Your task to perform on an android device: change the upload size in google photos Image 0: 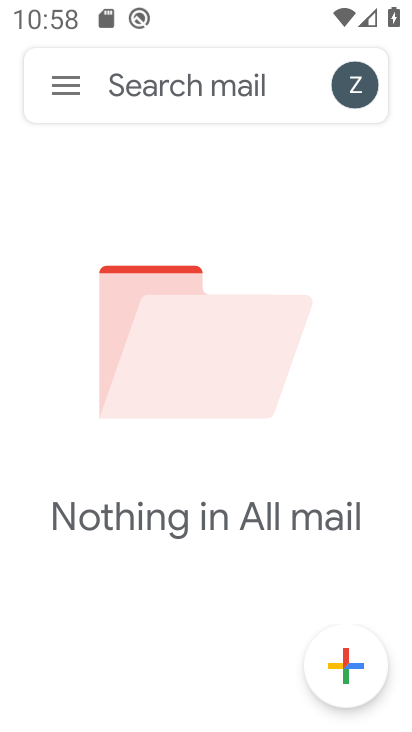
Step 0: press home button
Your task to perform on an android device: change the upload size in google photos Image 1: 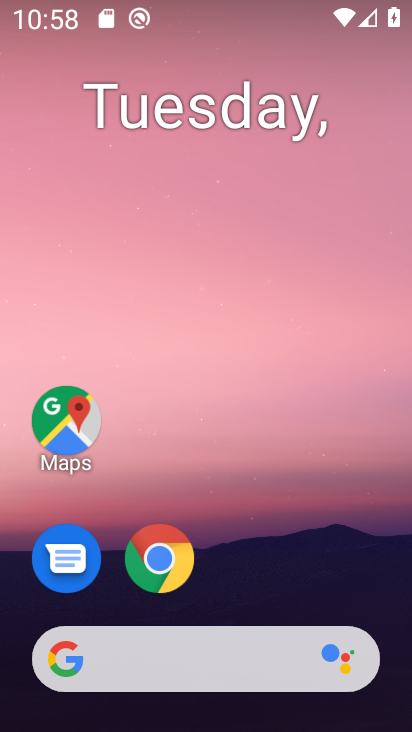
Step 1: drag from (308, 577) to (316, 169)
Your task to perform on an android device: change the upload size in google photos Image 2: 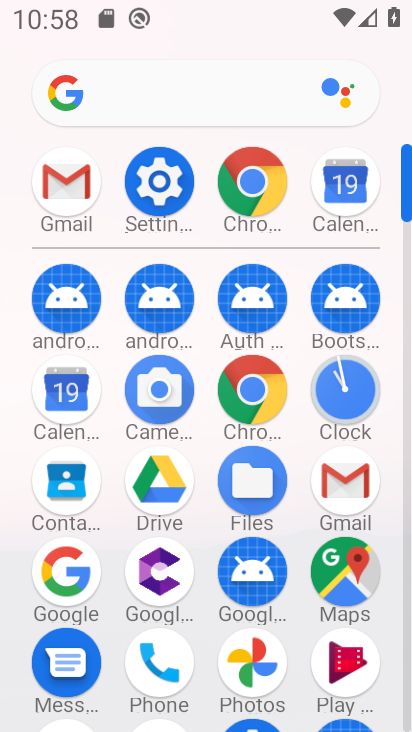
Step 2: click (266, 667)
Your task to perform on an android device: change the upload size in google photos Image 3: 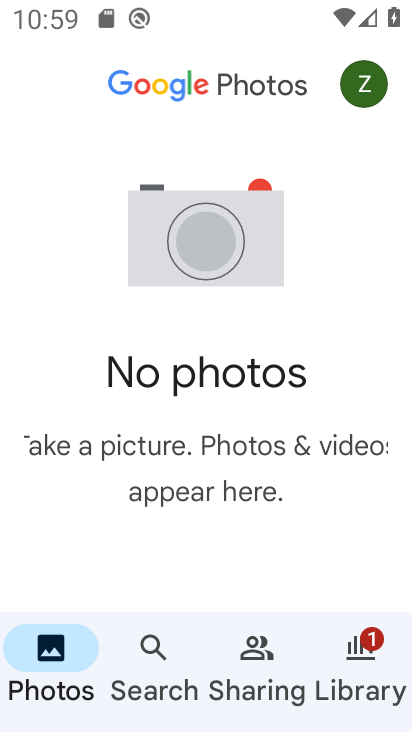
Step 3: click (364, 90)
Your task to perform on an android device: change the upload size in google photos Image 4: 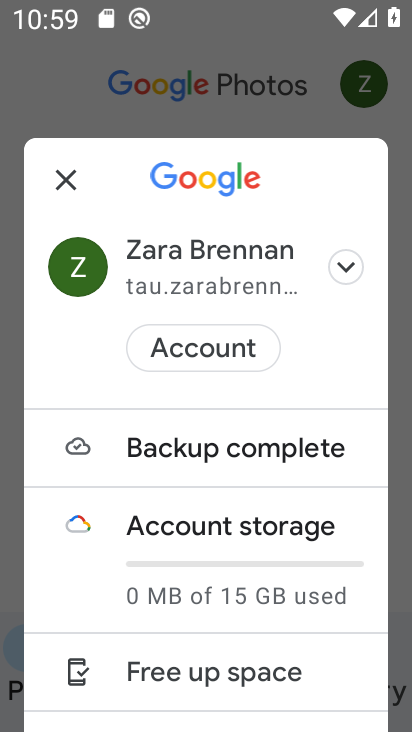
Step 4: drag from (328, 657) to (332, 456)
Your task to perform on an android device: change the upload size in google photos Image 5: 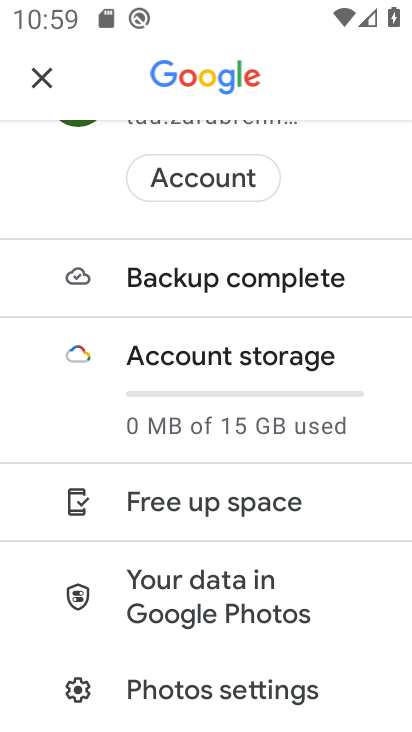
Step 5: drag from (361, 614) to (362, 494)
Your task to perform on an android device: change the upload size in google photos Image 6: 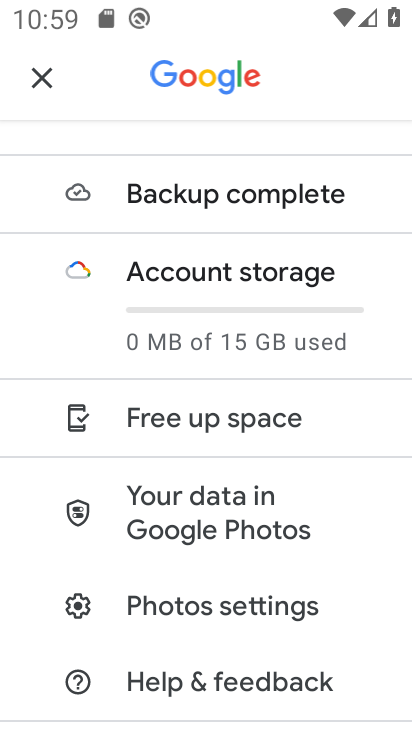
Step 6: click (317, 622)
Your task to perform on an android device: change the upload size in google photos Image 7: 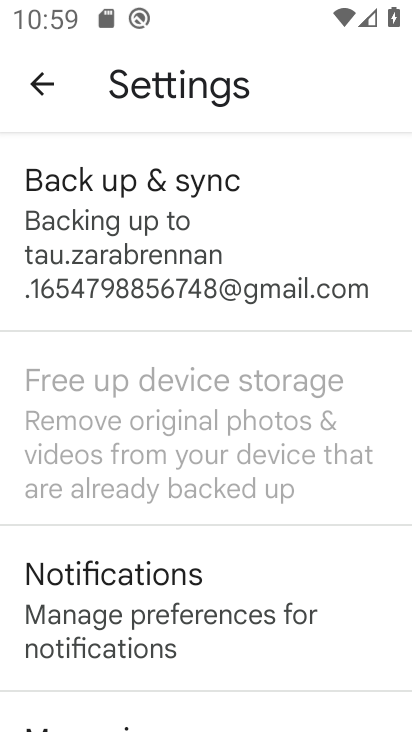
Step 7: click (234, 265)
Your task to perform on an android device: change the upload size in google photos Image 8: 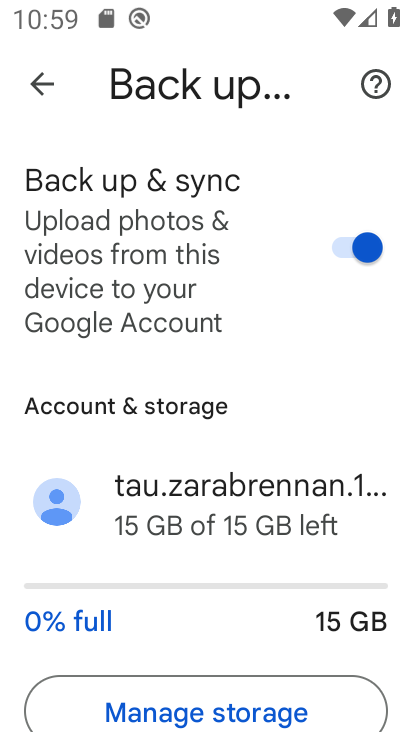
Step 8: drag from (239, 616) to (246, 438)
Your task to perform on an android device: change the upload size in google photos Image 9: 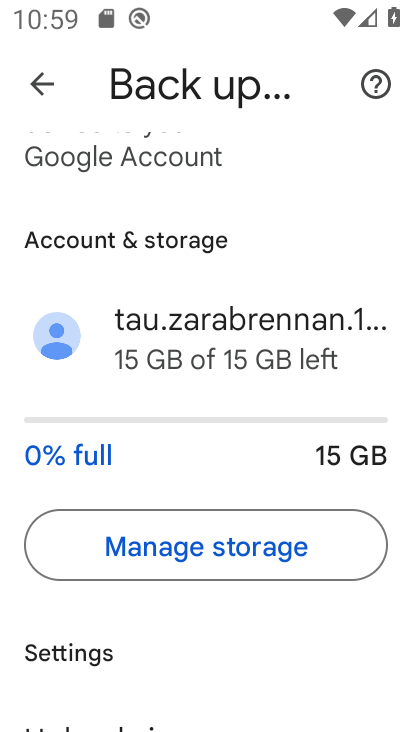
Step 9: drag from (237, 628) to (247, 413)
Your task to perform on an android device: change the upload size in google photos Image 10: 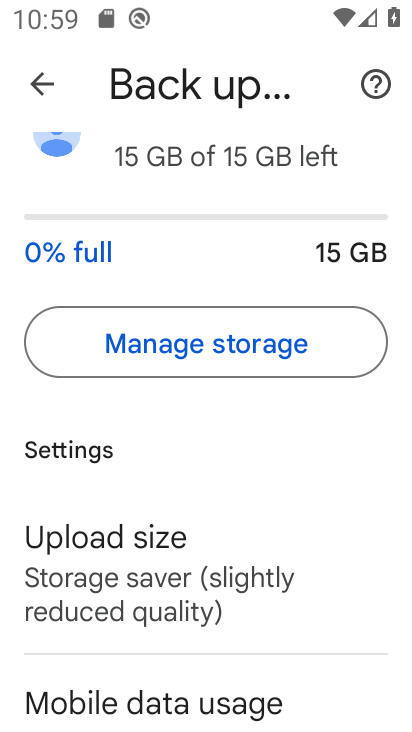
Step 10: click (204, 569)
Your task to perform on an android device: change the upload size in google photos Image 11: 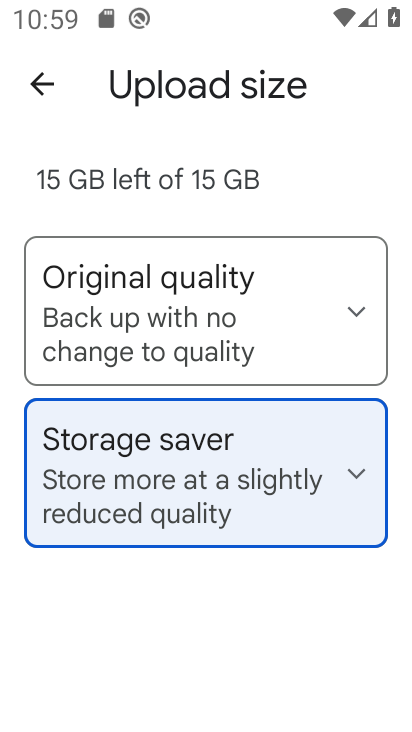
Step 11: click (230, 310)
Your task to perform on an android device: change the upload size in google photos Image 12: 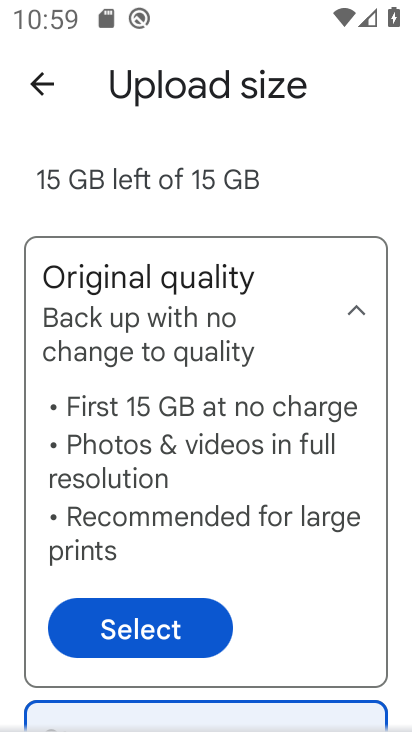
Step 12: click (190, 618)
Your task to perform on an android device: change the upload size in google photos Image 13: 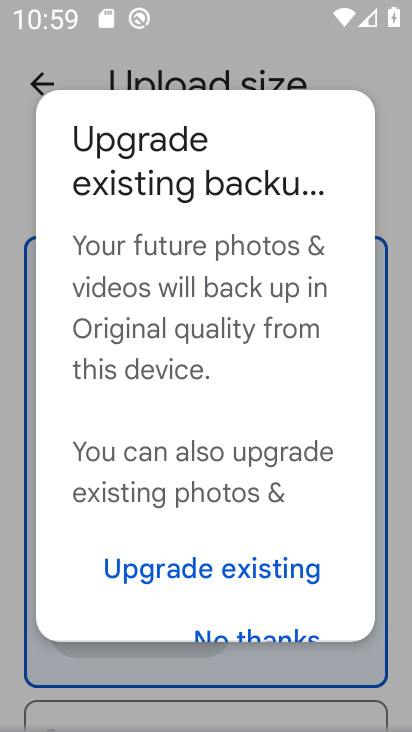
Step 13: click (220, 577)
Your task to perform on an android device: change the upload size in google photos Image 14: 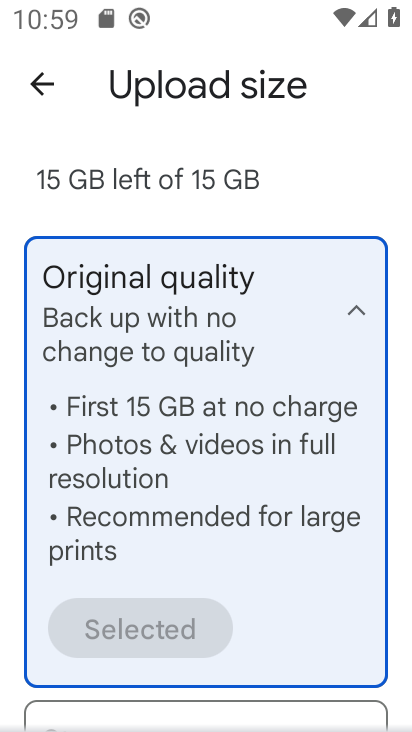
Step 14: task complete